Your task to perform on an android device: Open sound settings Image 0: 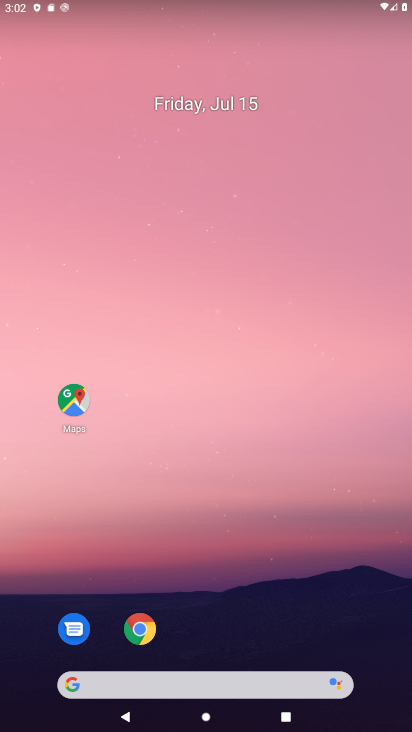
Step 0: click (289, 249)
Your task to perform on an android device: Open sound settings Image 1: 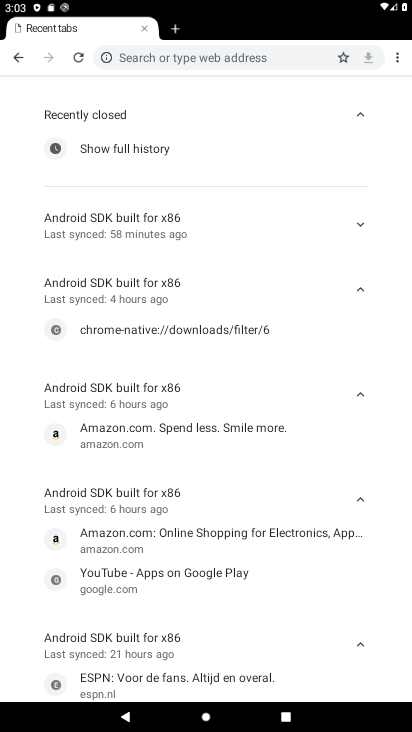
Step 1: press home button
Your task to perform on an android device: Open sound settings Image 2: 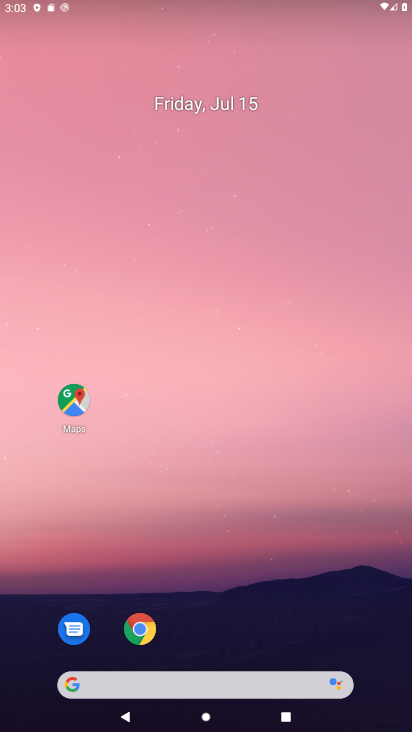
Step 2: drag from (226, 664) to (222, 95)
Your task to perform on an android device: Open sound settings Image 3: 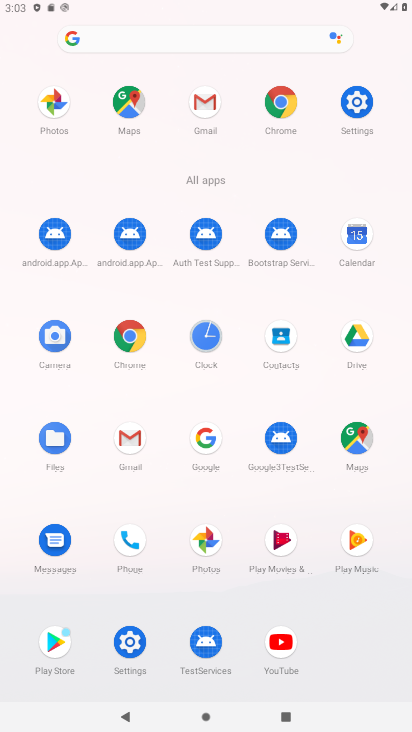
Step 3: click (354, 98)
Your task to perform on an android device: Open sound settings Image 4: 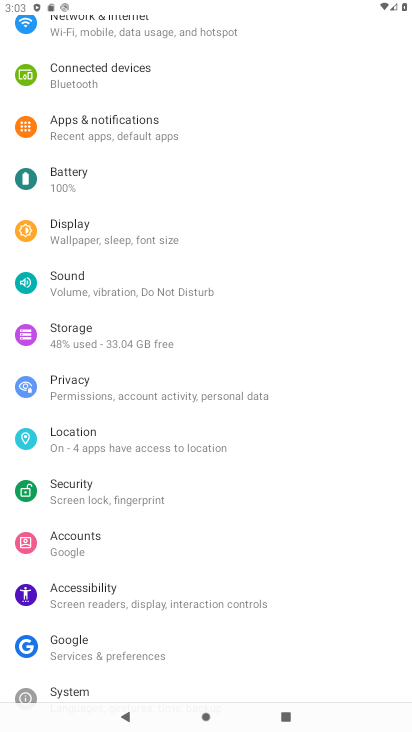
Step 4: click (88, 283)
Your task to perform on an android device: Open sound settings Image 5: 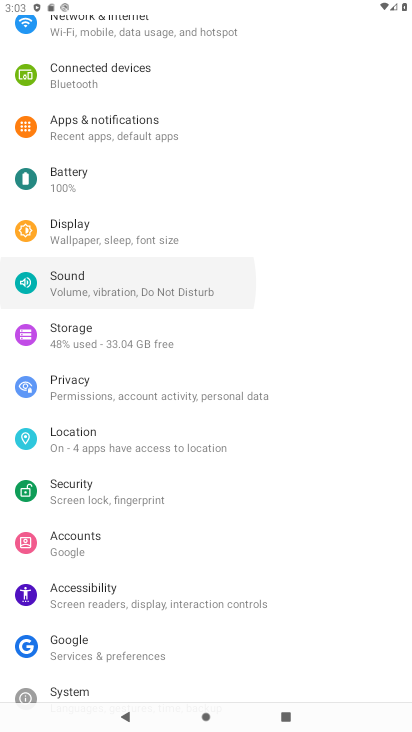
Step 5: click (86, 283)
Your task to perform on an android device: Open sound settings Image 6: 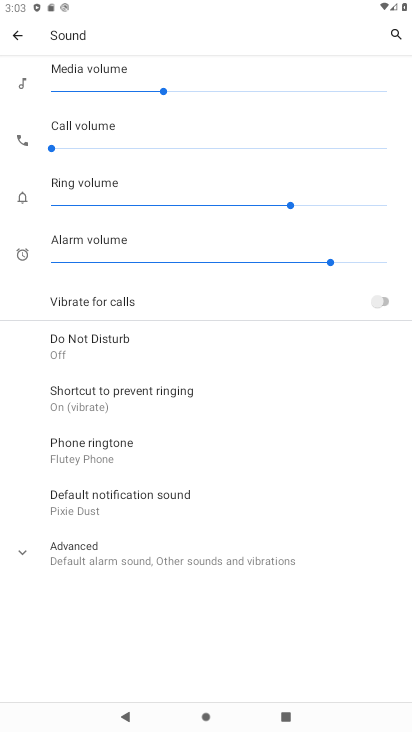
Step 6: task complete